Your task to perform on an android device: Open sound settings Image 0: 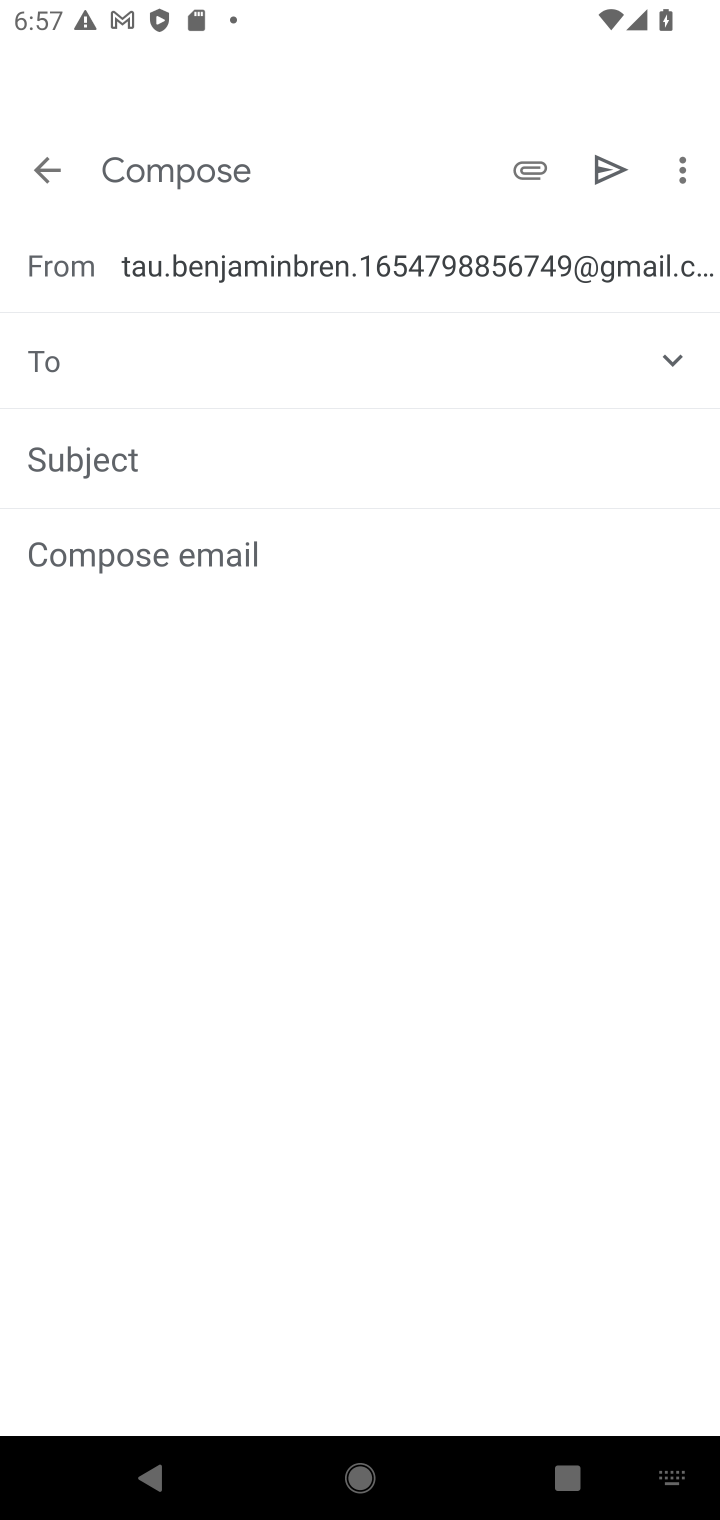
Step 0: press home button
Your task to perform on an android device: Open sound settings Image 1: 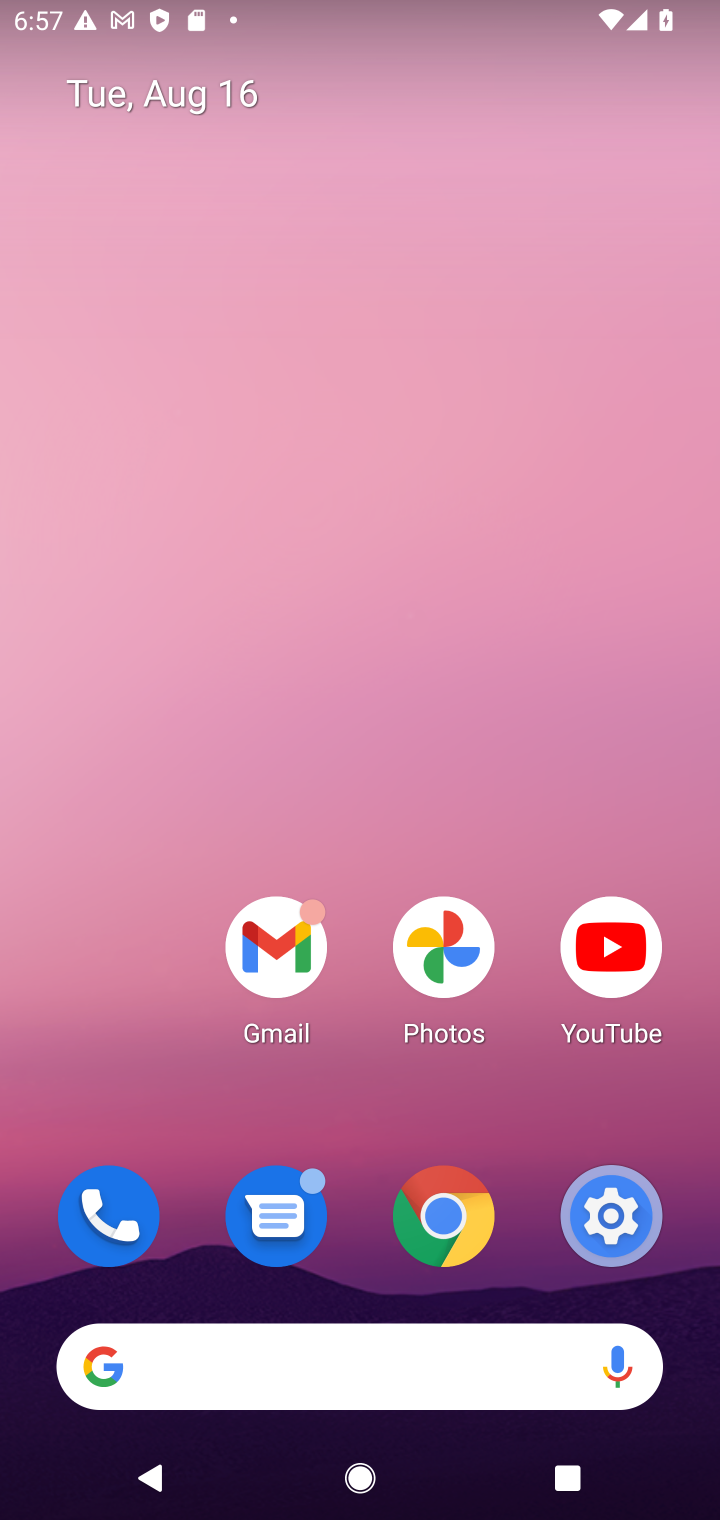
Step 1: drag from (157, 1092) to (138, 365)
Your task to perform on an android device: Open sound settings Image 2: 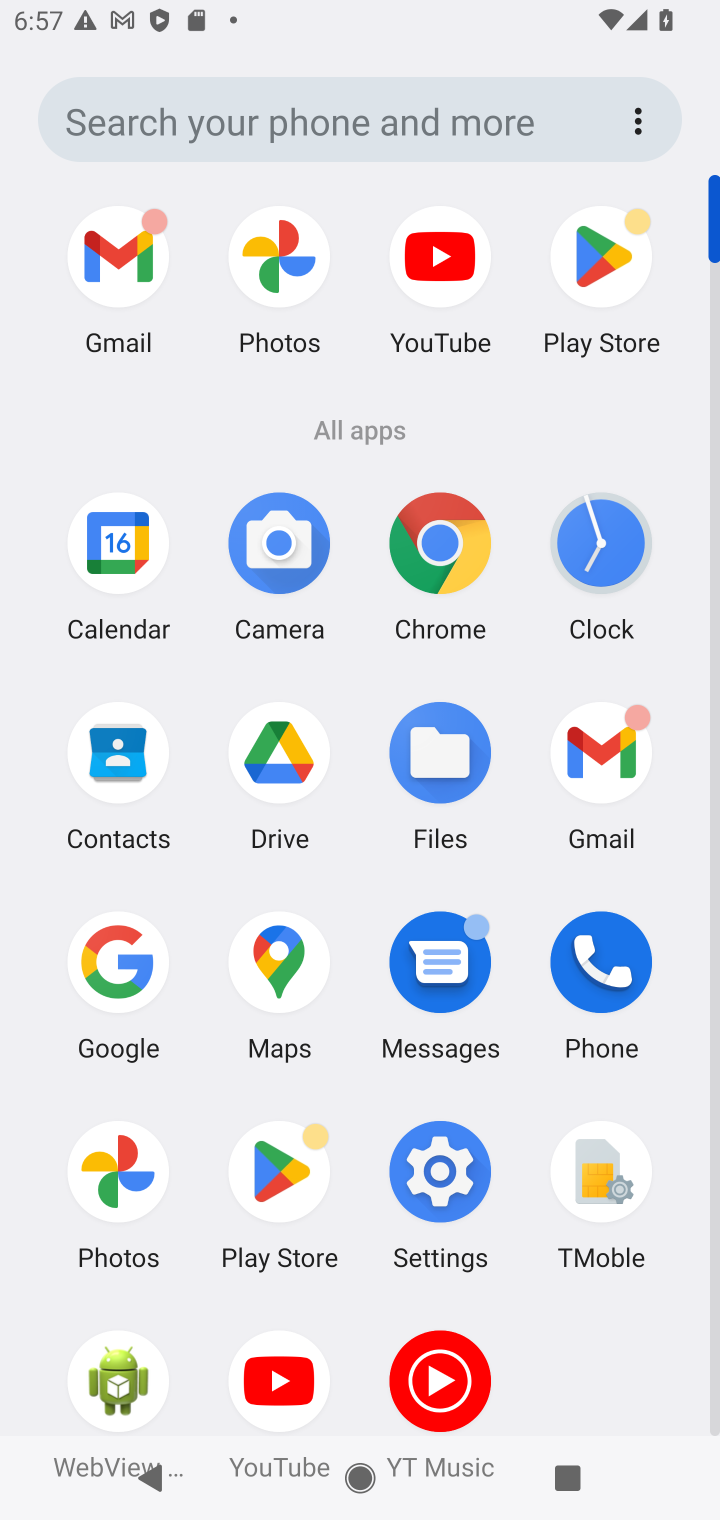
Step 2: click (445, 1205)
Your task to perform on an android device: Open sound settings Image 3: 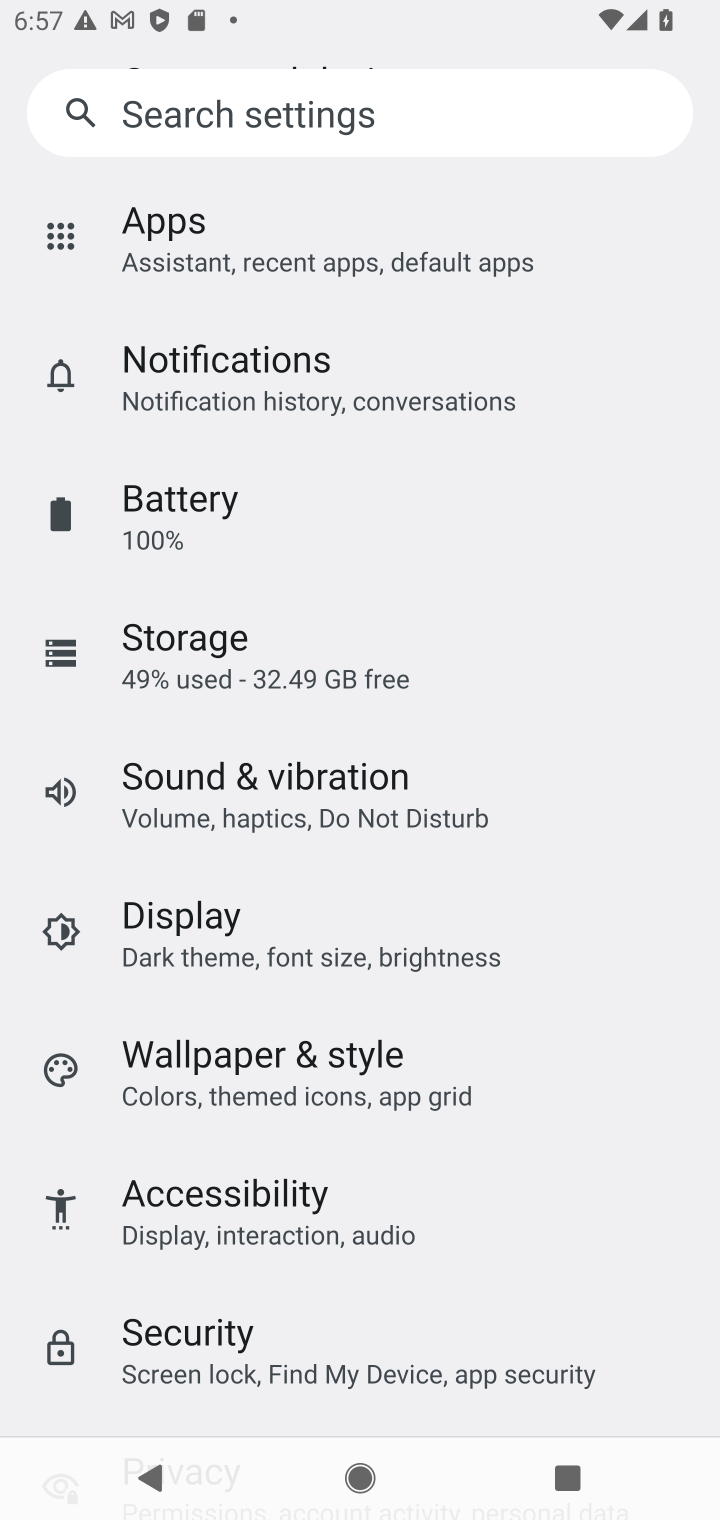
Step 3: drag from (615, 1191) to (637, 903)
Your task to perform on an android device: Open sound settings Image 4: 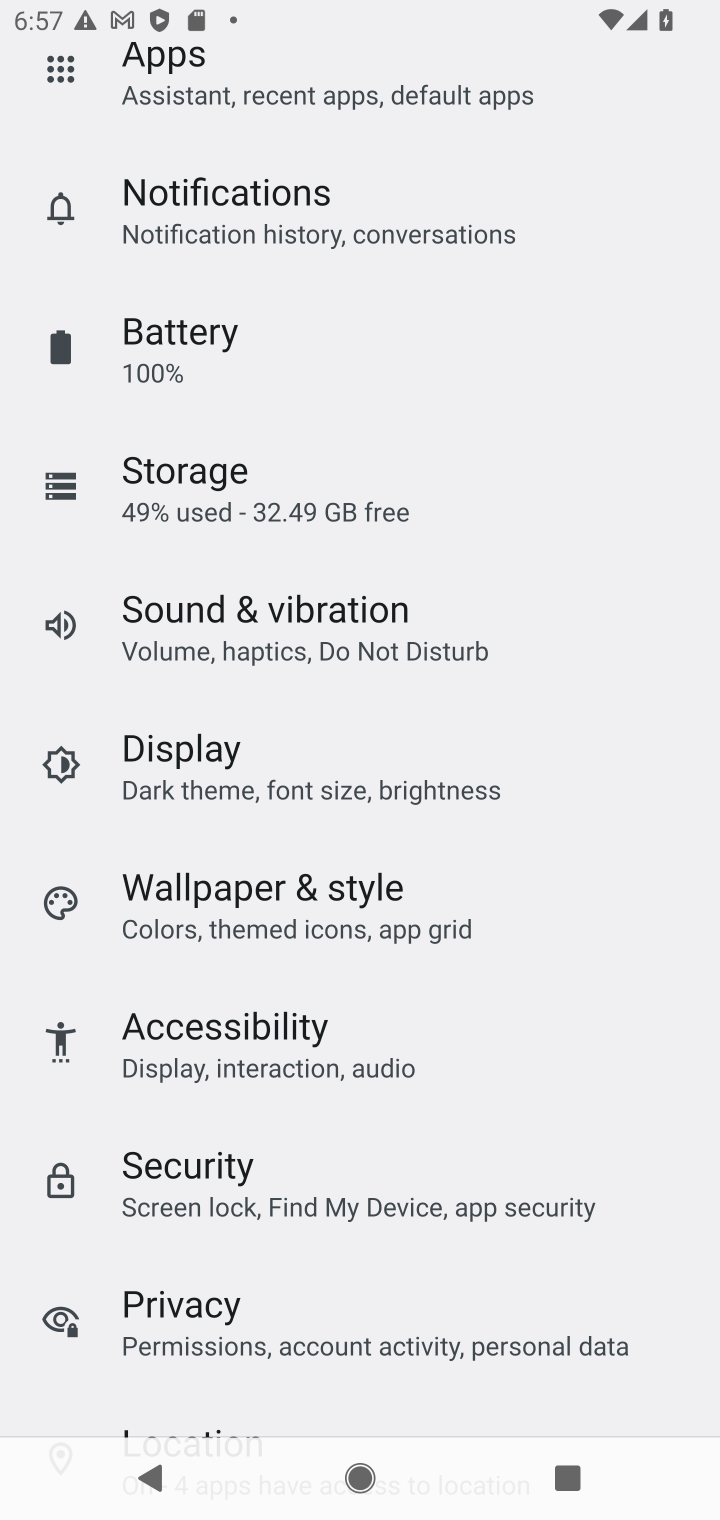
Step 4: drag from (662, 1267) to (653, 868)
Your task to perform on an android device: Open sound settings Image 5: 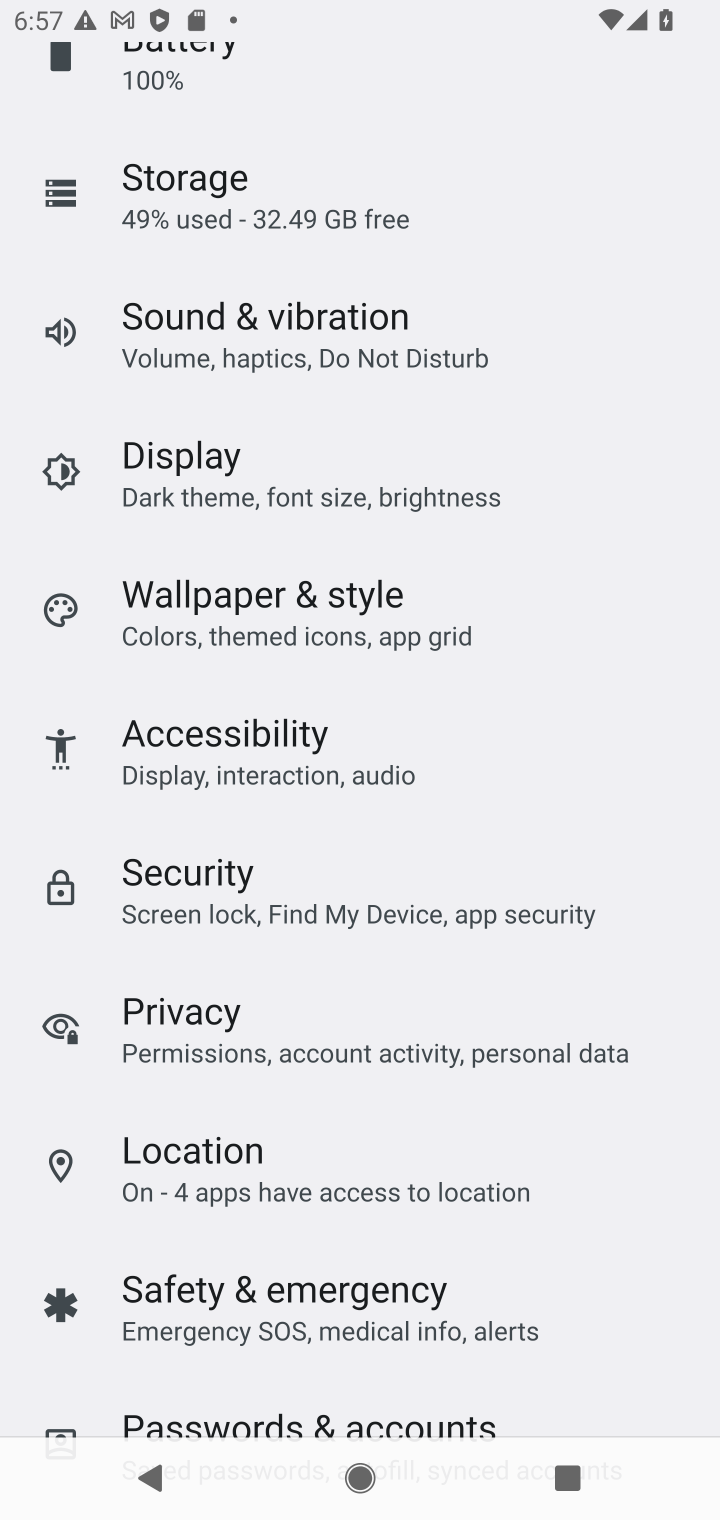
Step 5: drag from (634, 1221) to (653, 861)
Your task to perform on an android device: Open sound settings Image 6: 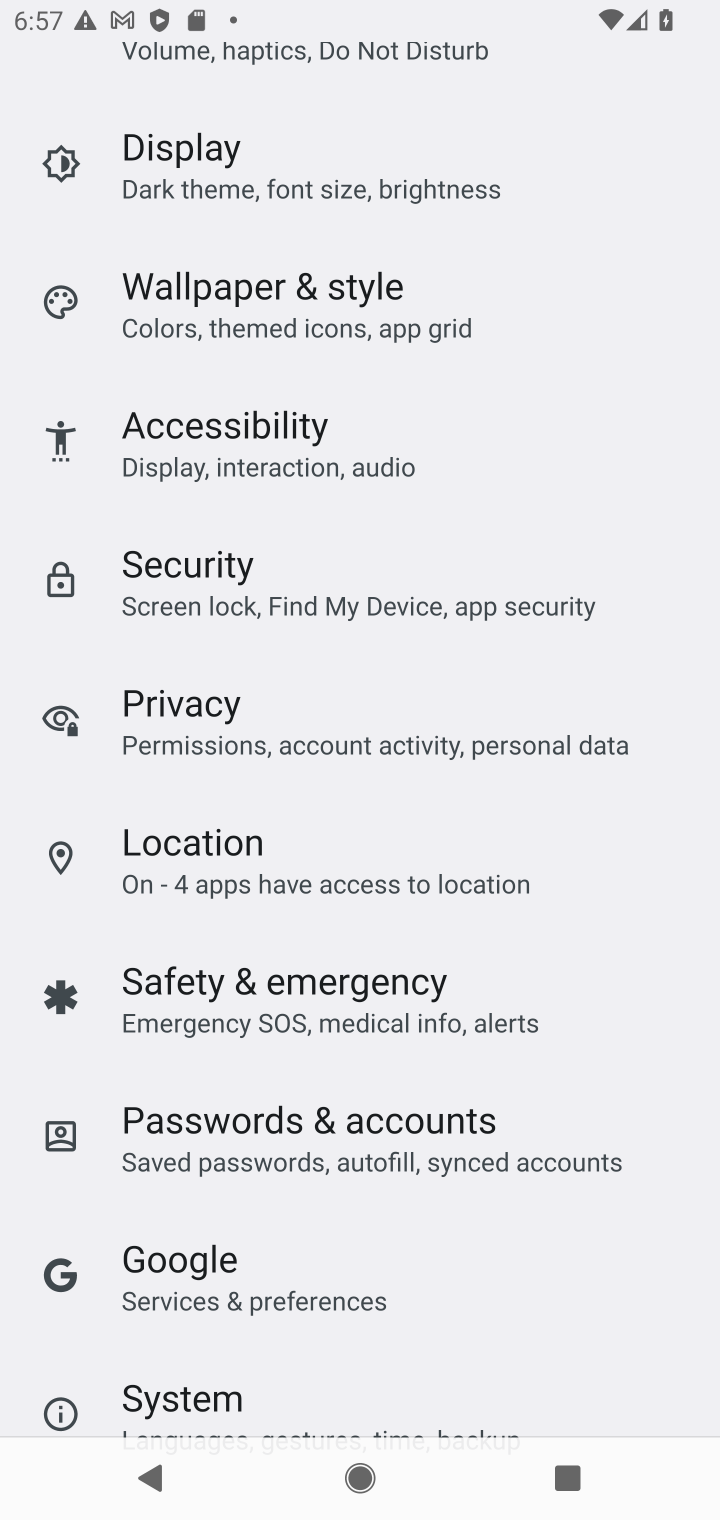
Step 6: drag from (631, 1342) to (652, 850)
Your task to perform on an android device: Open sound settings Image 7: 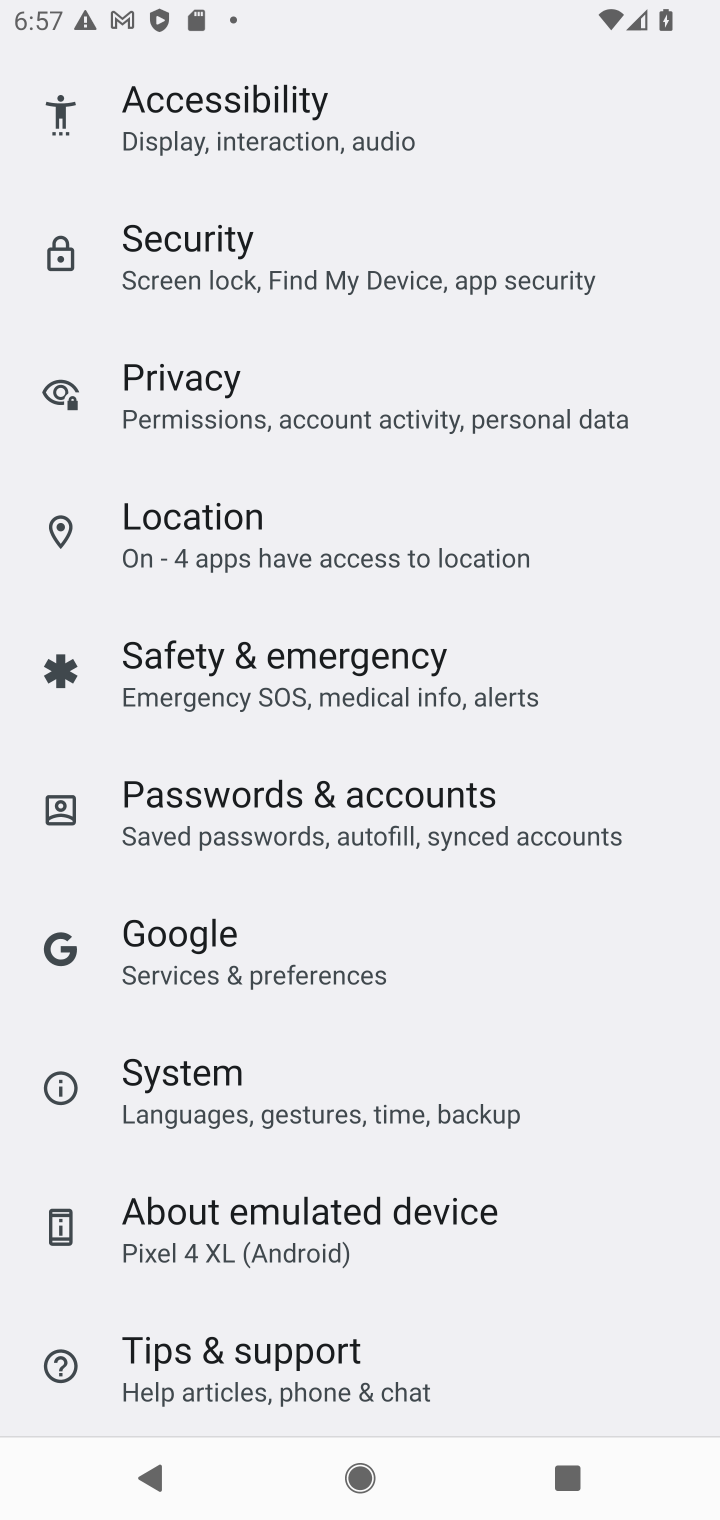
Step 7: drag from (662, 562) to (673, 894)
Your task to perform on an android device: Open sound settings Image 8: 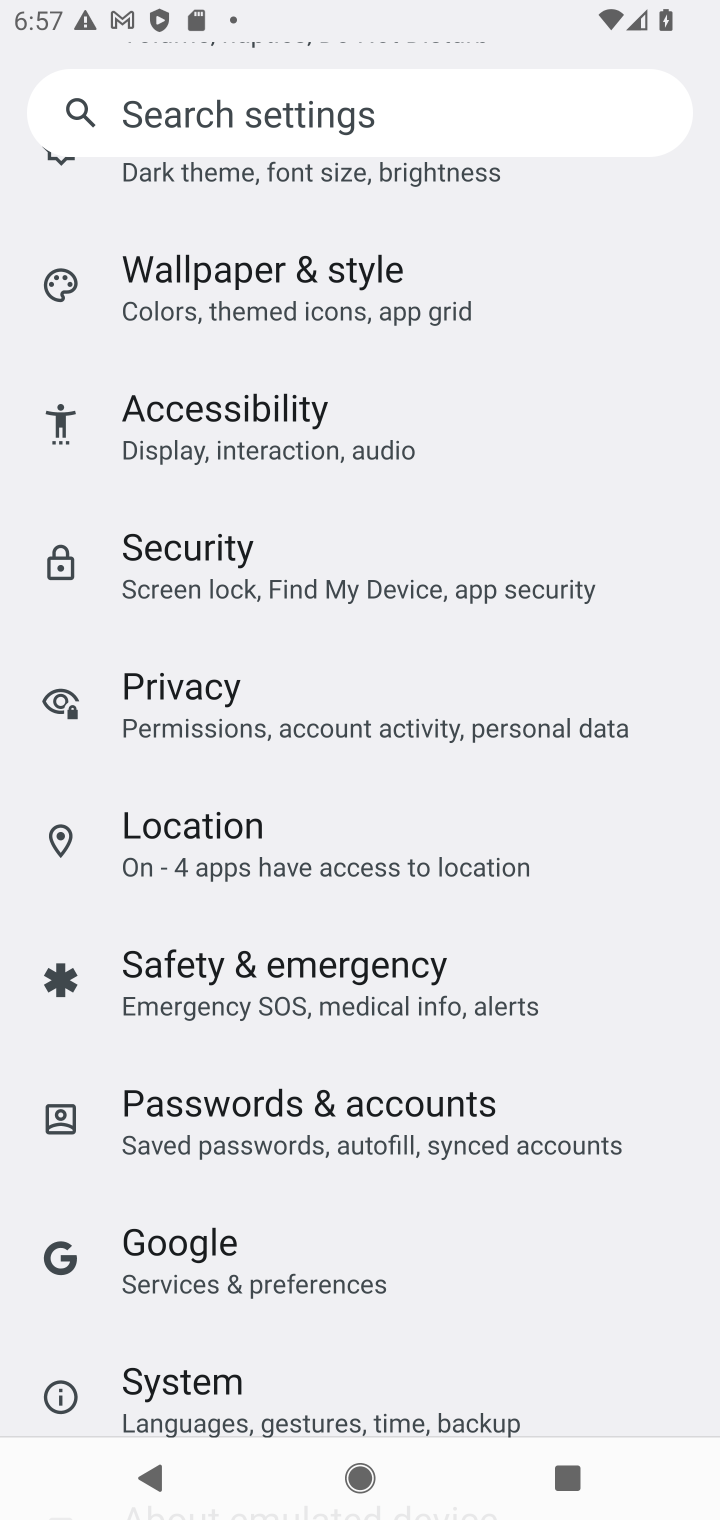
Step 8: drag from (660, 433) to (662, 745)
Your task to perform on an android device: Open sound settings Image 9: 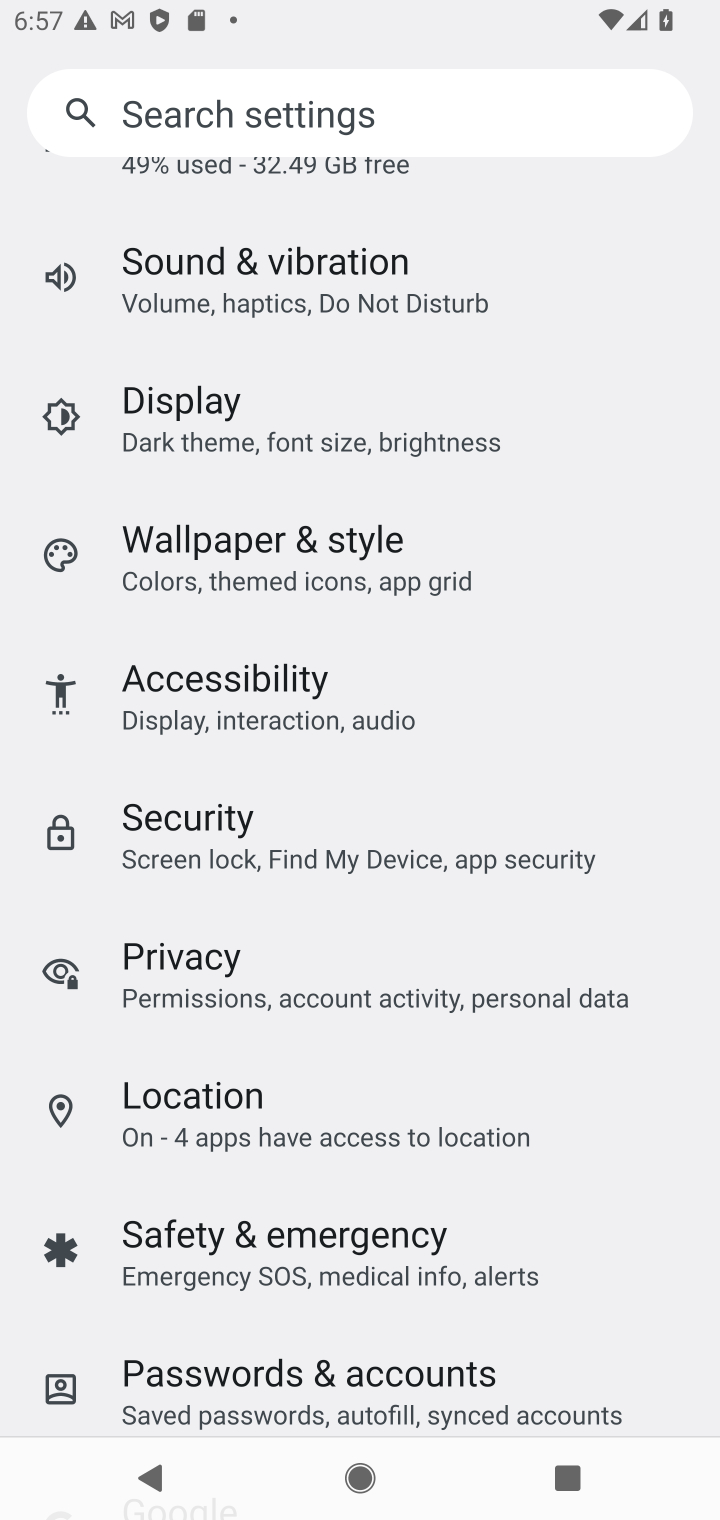
Step 9: drag from (643, 381) to (641, 818)
Your task to perform on an android device: Open sound settings Image 10: 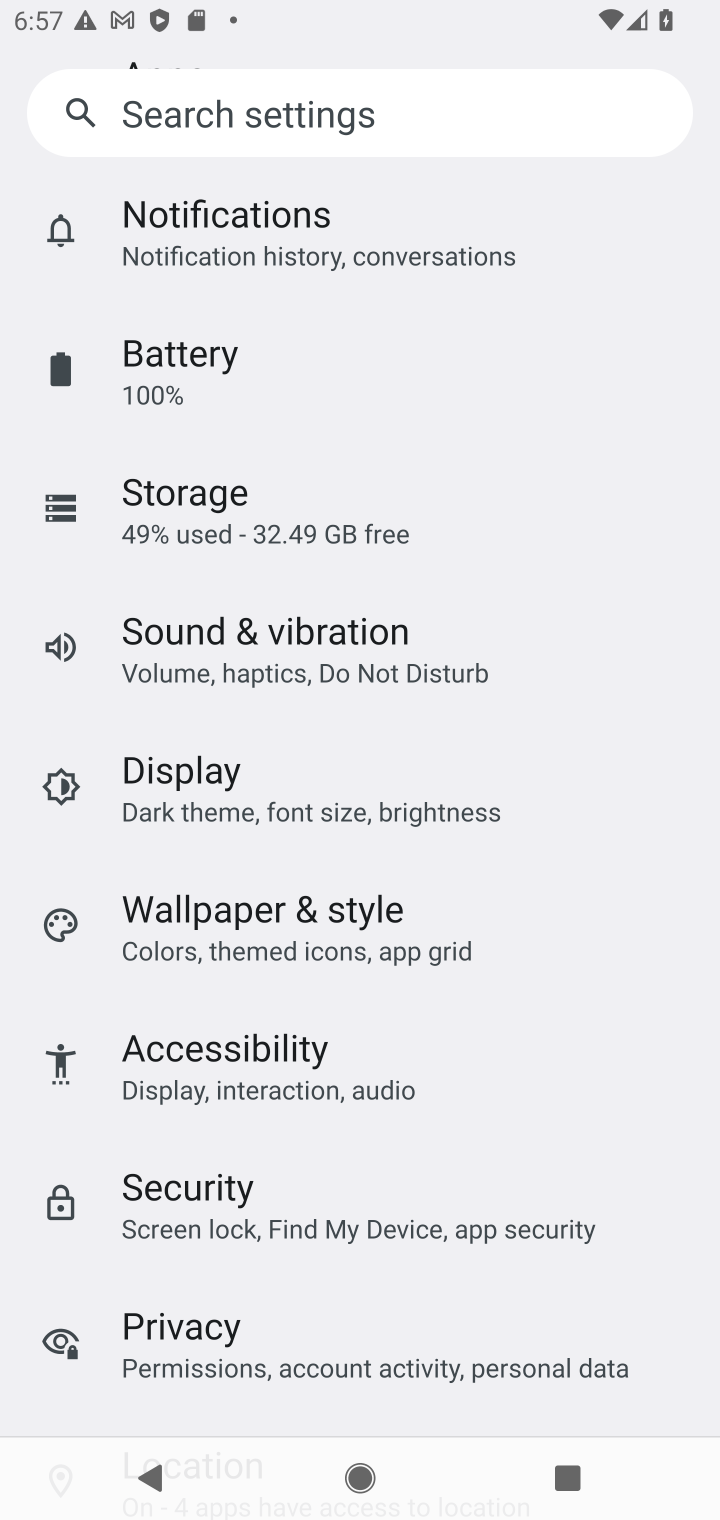
Step 10: drag from (617, 439) to (613, 837)
Your task to perform on an android device: Open sound settings Image 11: 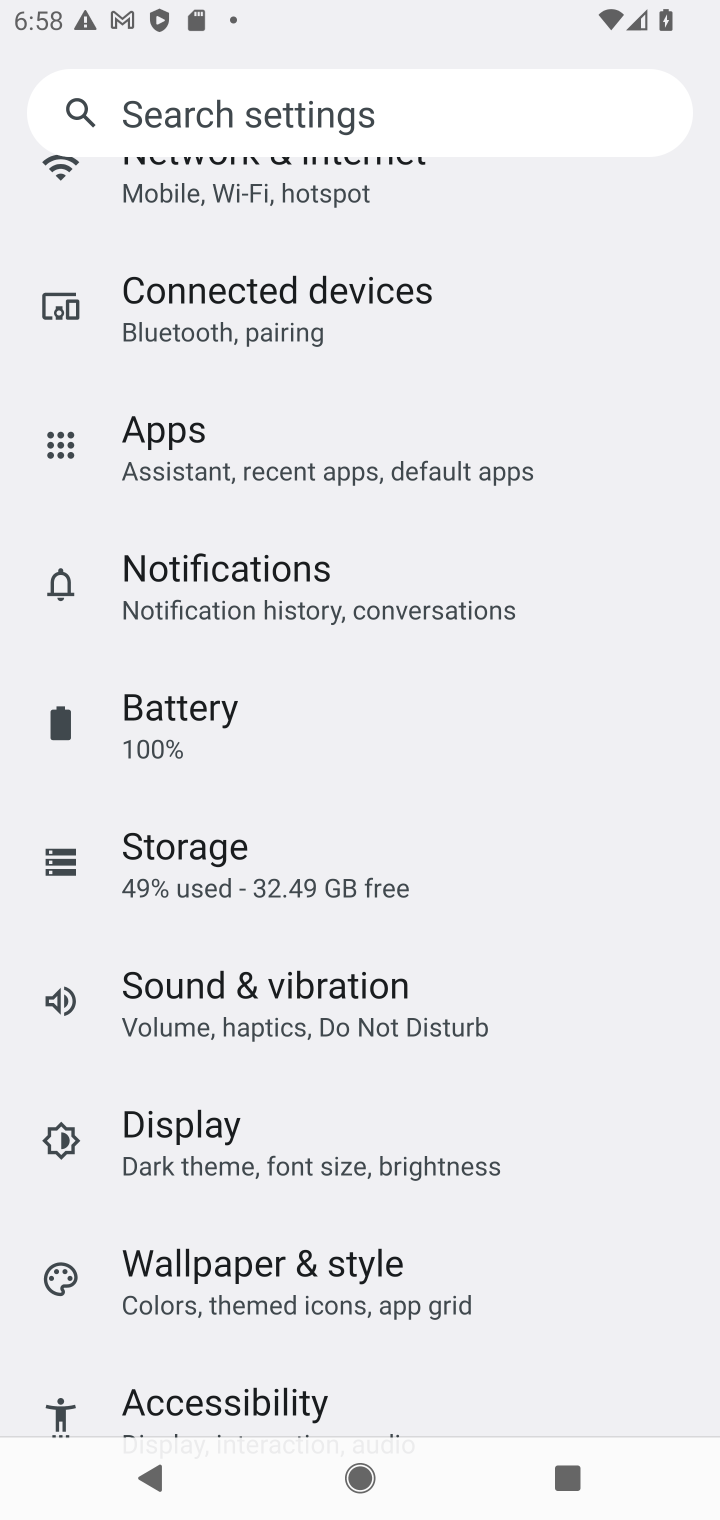
Step 11: drag from (621, 430) to (600, 657)
Your task to perform on an android device: Open sound settings Image 12: 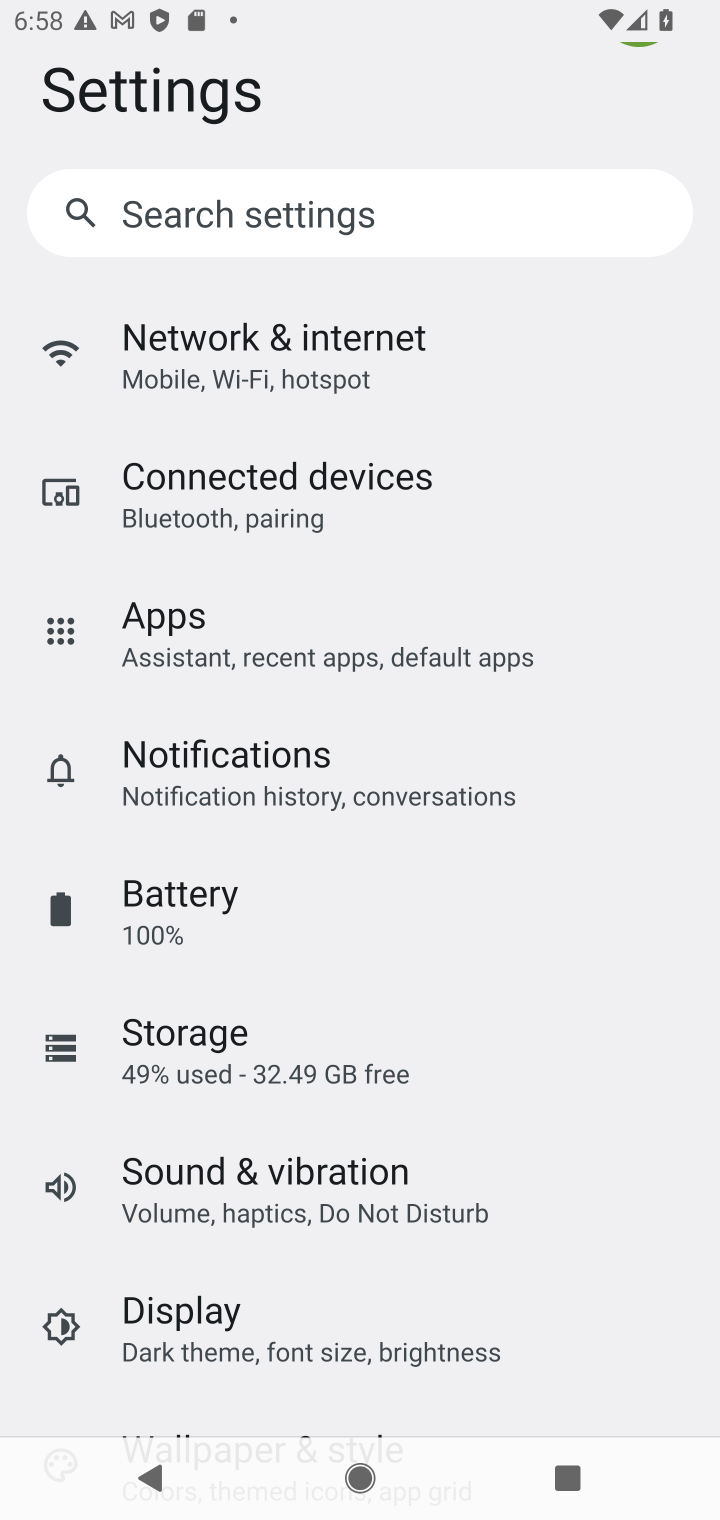
Step 12: click (536, 1208)
Your task to perform on an android device: Open sound settings Image 13: 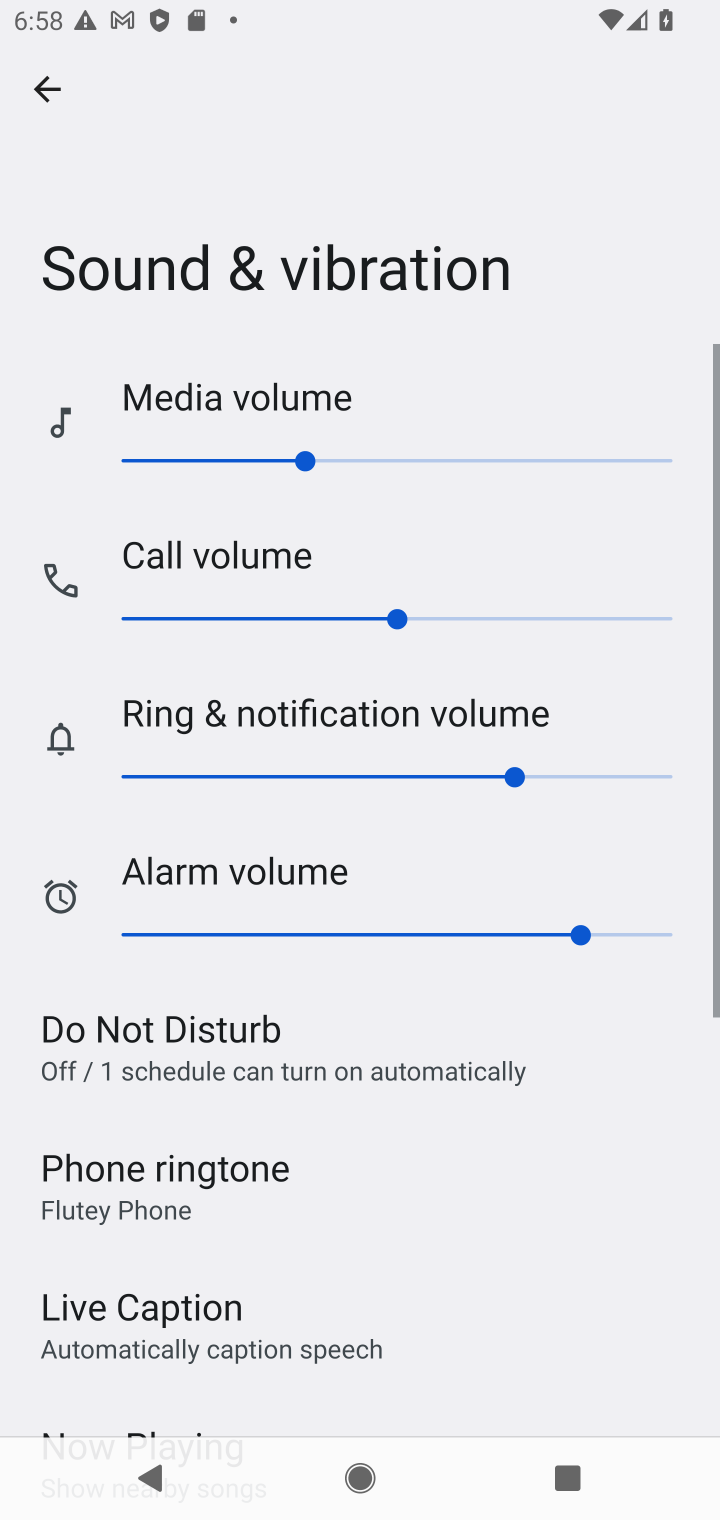
Step 13: task complete